Your task to perform on an android device: change your default location settings in chrome Image 0: 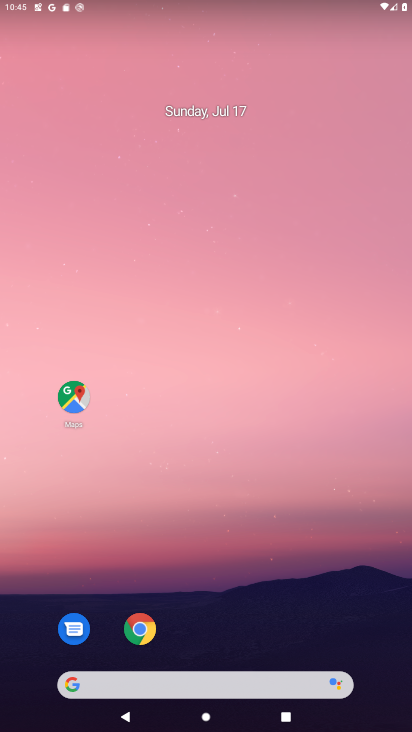
Step 0: click (139, 629)
Your task to perform on an android device: change your default location settings in chrome Image 1: 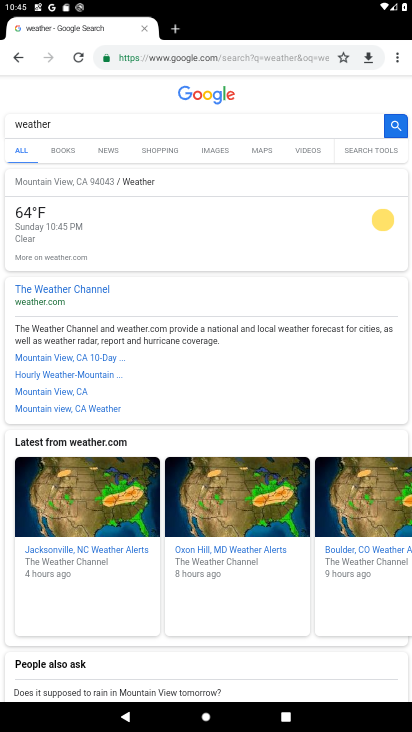
Step 1: click (398, 61)
Your task to perform on an android device: change your default location settings in chrome Image 2: 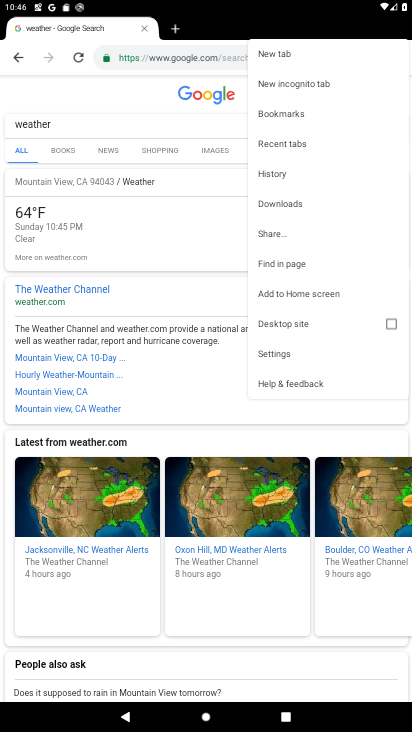
Step 2: click (281, 352)
Your task to perform on an android device: change your default location settings in chrome Image 3: 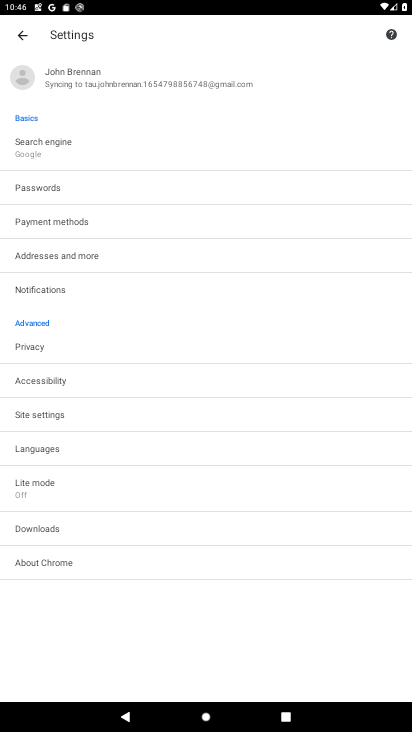
Step 3: click (53, 417)
Your task to perform on an android device: change your default location settings in chrome Image 4: 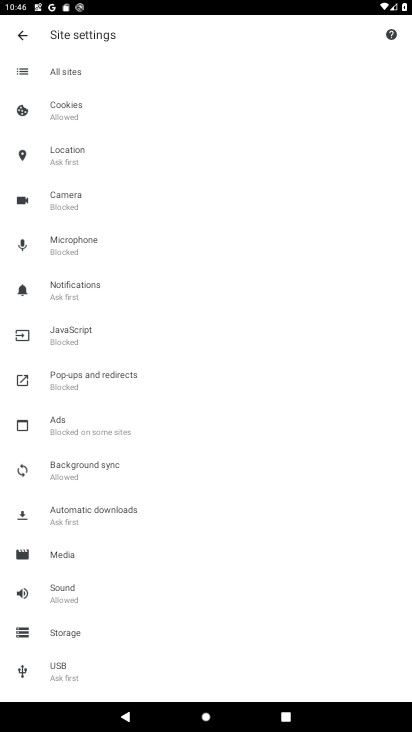
Step 4: click (78, 156)
Your task to perform on an android device: change your default location settings in chrome Image 5: 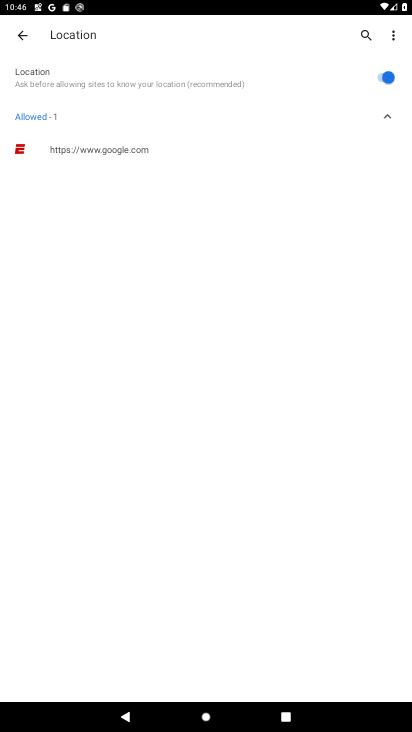
Step 5: click (394, 77)
Your task to perform on an android device: change your default location settings in chrome Image 6: 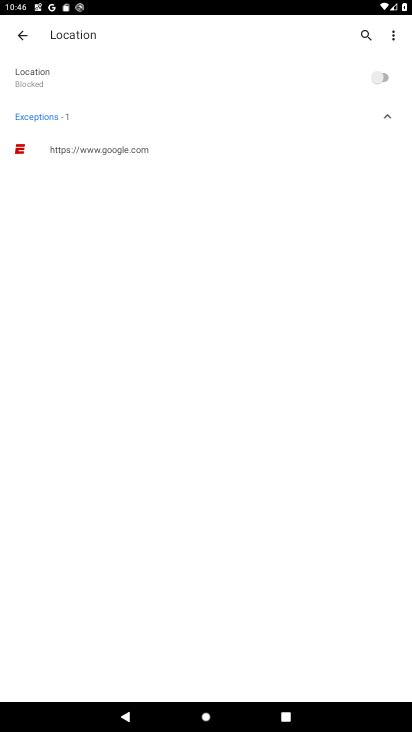
Step 6: task complete